Your task to perform on an android device: turn on wifi Image 0: 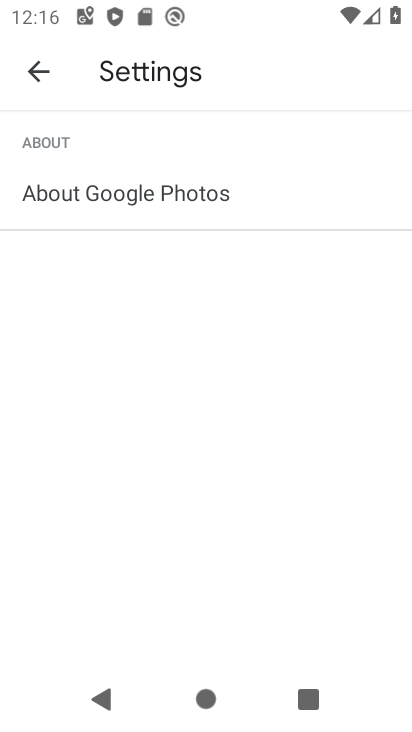
Step 0: press home button
Your task to perform on an android device: turn on wifi Image 1: 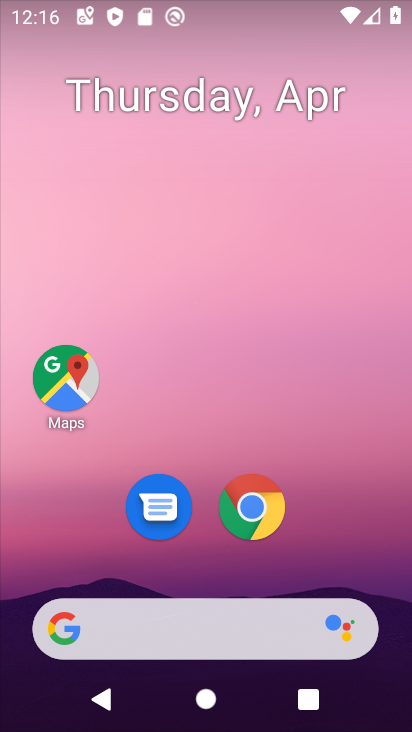
Step 1: drag from (313, 566) to (319, 103)
Your task to perform on an android device: turn on wifi Image 2: 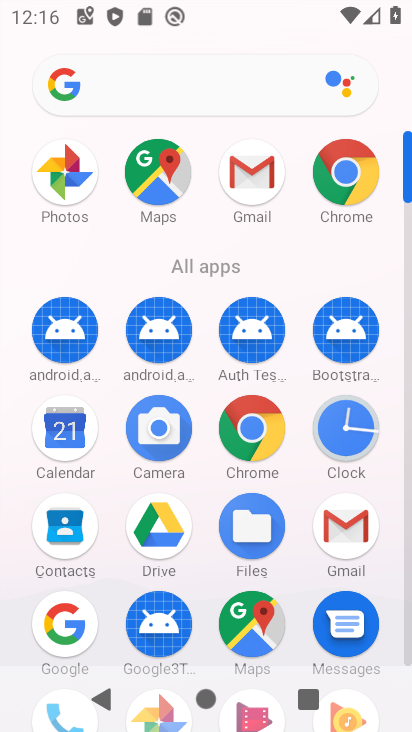
Step 2: drag from (199, 497) to (221, 245)
Your task to perform on an android device: turn on wifi Image 3: 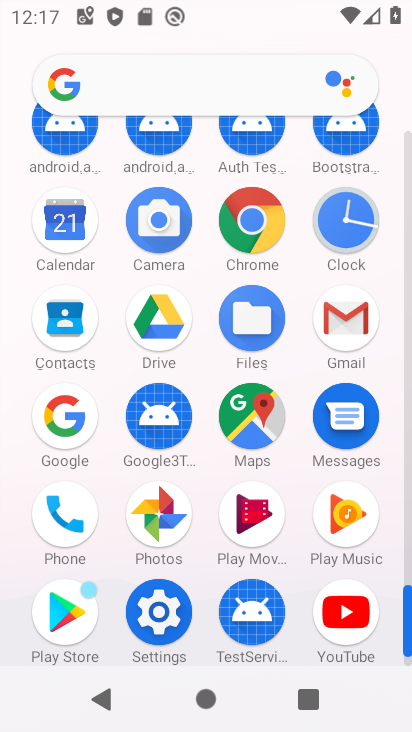
Step 3: click (159, 612)
Your task to perform on an android device: turn on wifi Image 4: 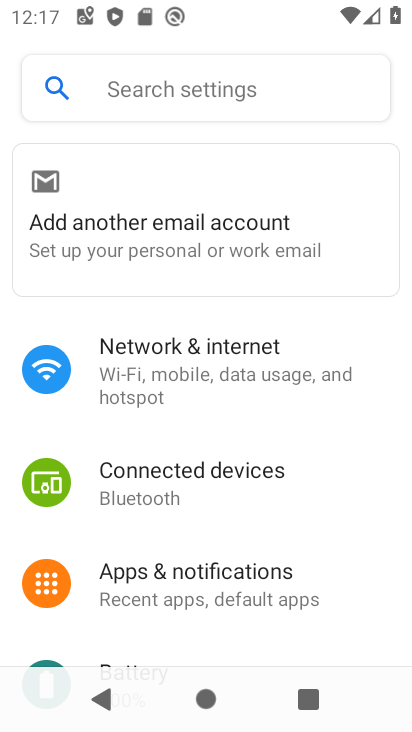
Step 4: click (243, 345)
Your task to perform on an android device: turn on wifi Image 5: 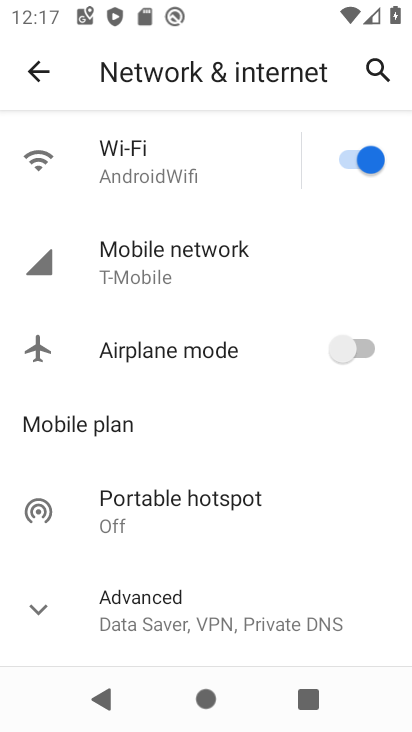
Step 5: task complete